Your task to perform on an android device: toggle location history Image 0: 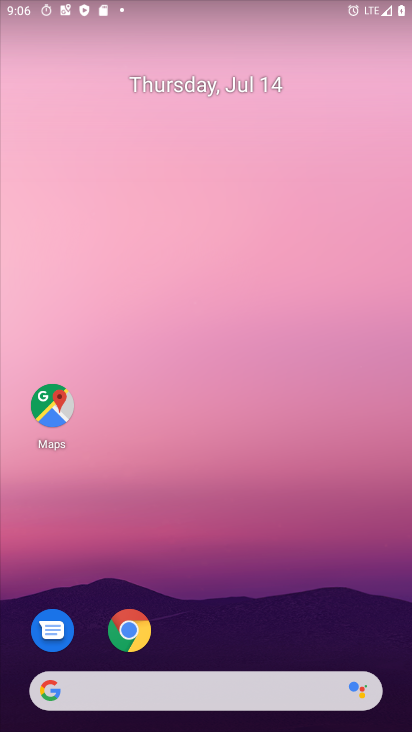
Step 0: drag from (249, 632) to (257, 345)
Your task to perform on an android device: toggle location history Image 1: 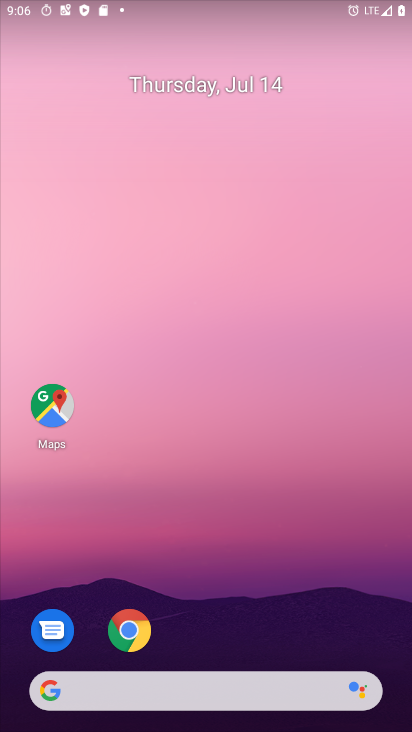
Step 1: drag from (228, 729) to (209, 70)
Your task to perform on an android device: toggle location history Image 2: 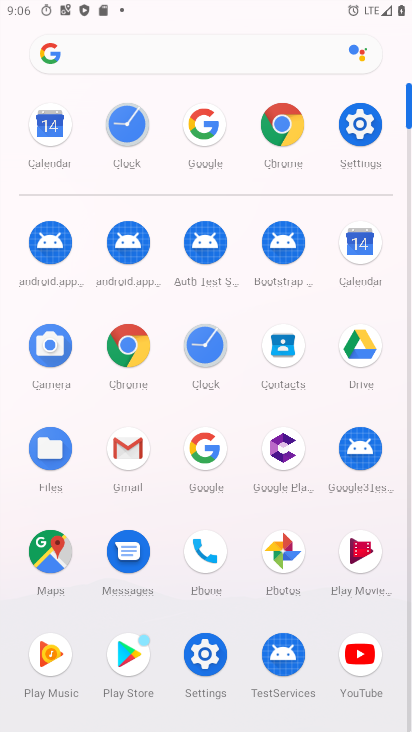
Step 2: click (357, 131)
Your task to perform on an android device: toggle location history Image 3: 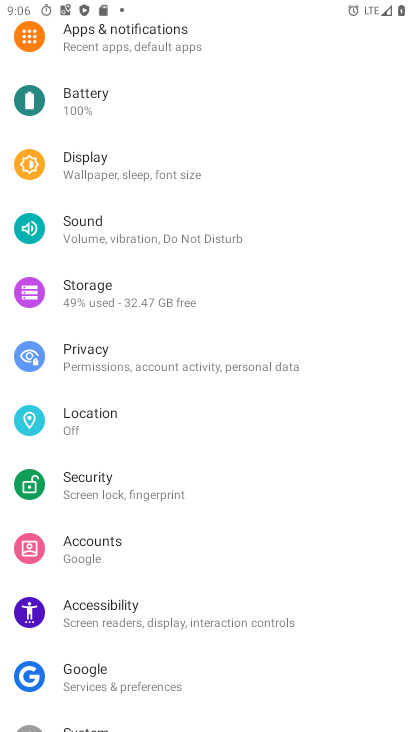
Step 3: click (79, 424)
Your task to perform on an android device: toggle location history Image 4: 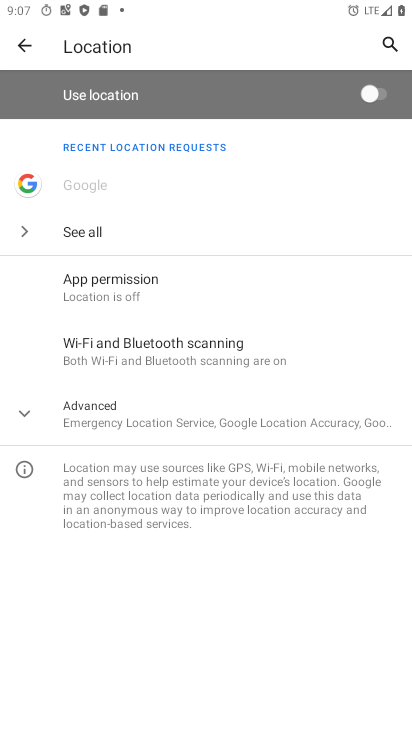
Step 4: click (82, 410)
Your task to perform on an android device: toggle location history Image 5: 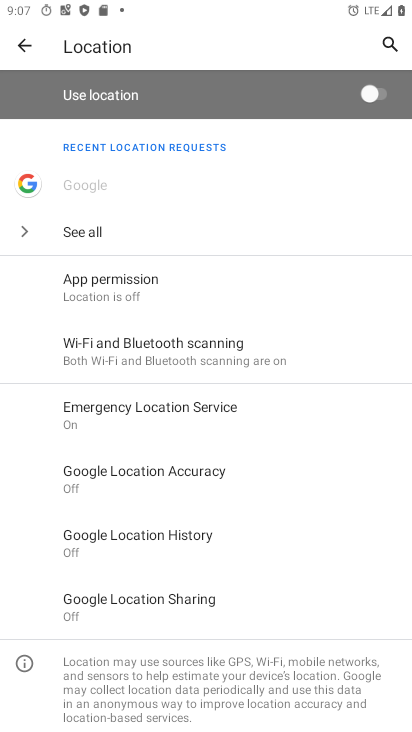
Step 5: click (97, 538)
Your task to perform on an android device: toggle location history Image 6: 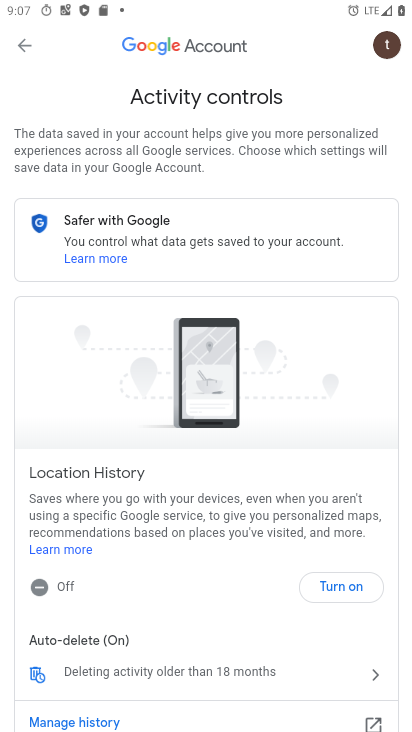
Step 6: click (330, 586)
Your task to perform on an android device: toggle location history Image 7: 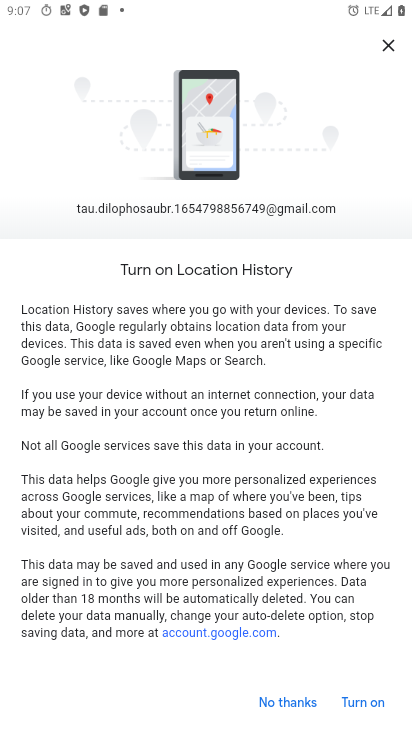
Step 7: click (359, 705)
Your task to perform on an android device: toggle location history Image 8: 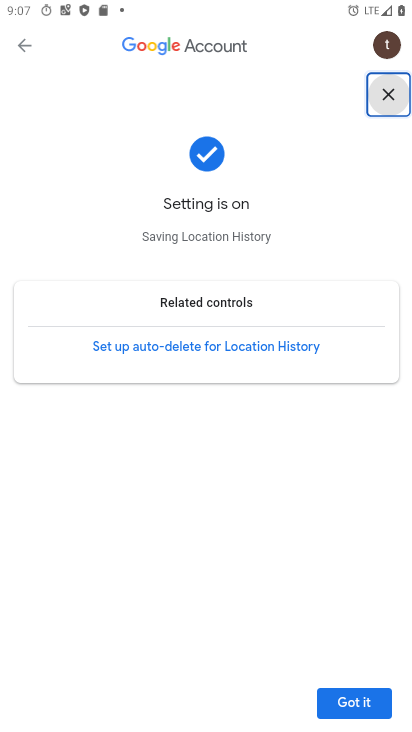
Step 8: task complete